Your task to perform on an android device: check battery use Image 0: 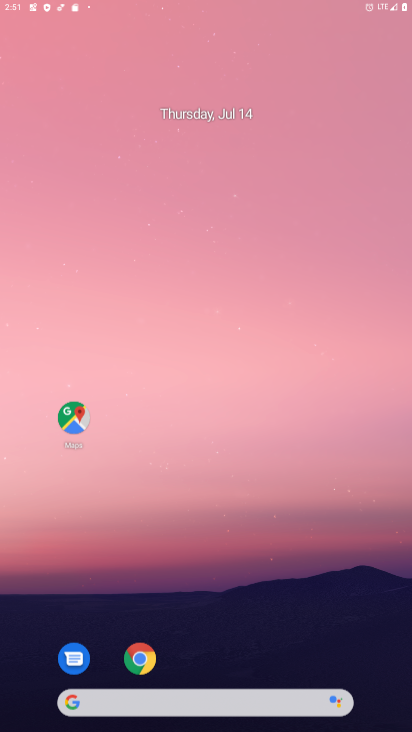
Step 0: press home button
Your task to perform on an android device: check battery use Image 1: 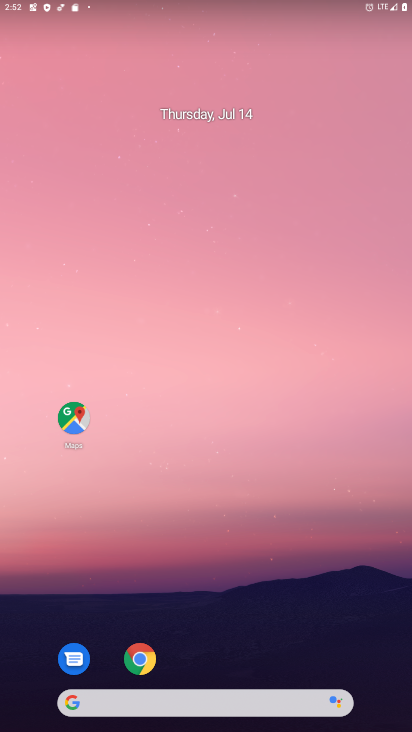
Step 1: drag from (275, 638) to (280, 98)
Your task to perform on an android device: check battery use Image 2: 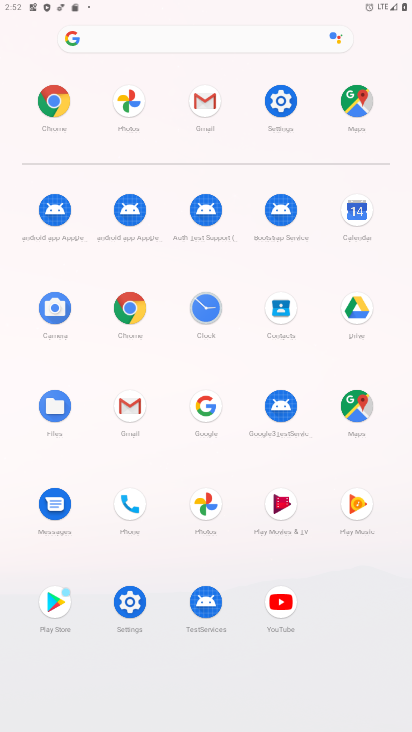
Step 2: click (280, 110)
Your task to perform on an android device: check battery use Image 3: 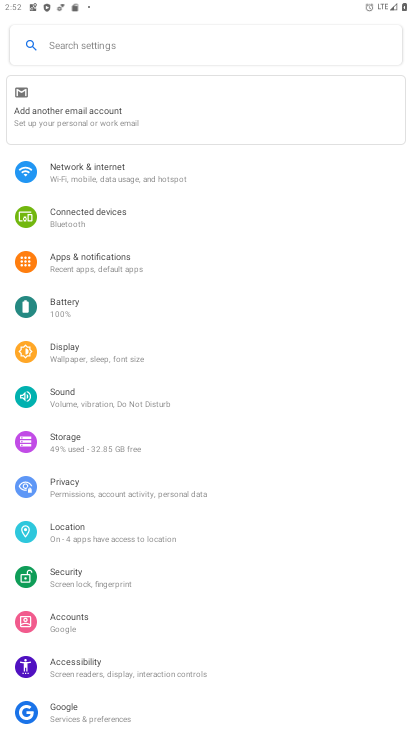
Step 3: click (73, 306)
Your task to perform on an android device: check battery use Image 4: 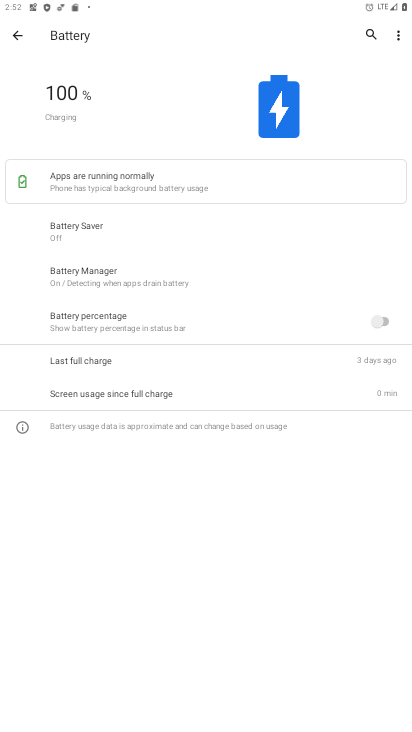
Step 4: click (394, 32)
Your task to perform on an android device: check battery use Image 5: 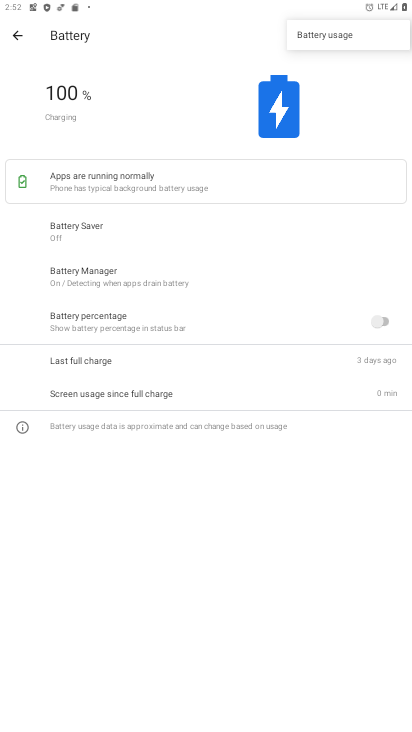
Step 5: click (326, 35)
Your task to perform on an android device: check battery use Image 6: 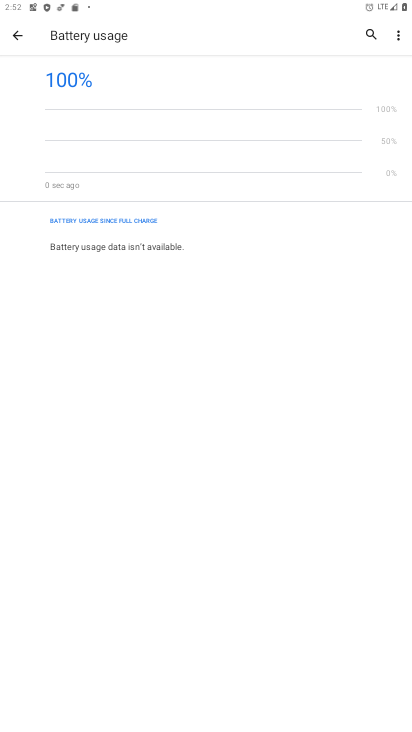
Step 6: task complete